Your task to perform on an android device: Open the phone app and click the voicemail tab. Image 0: 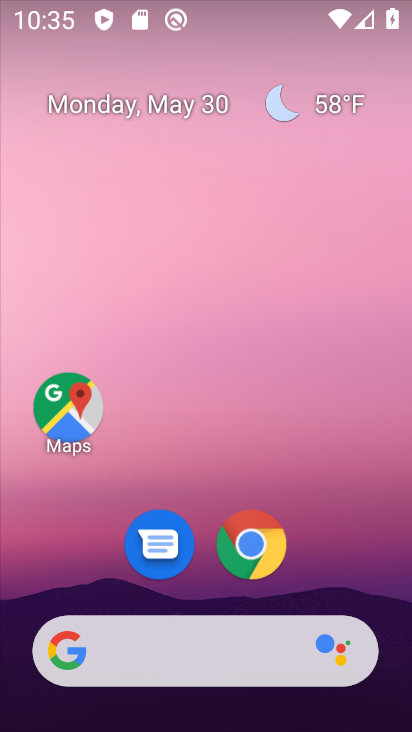
Step 0: drag from (395, 570) to (223, 8)
Your task to perform on an android device: Open the phone app and click the voicemail tab. Image 1: 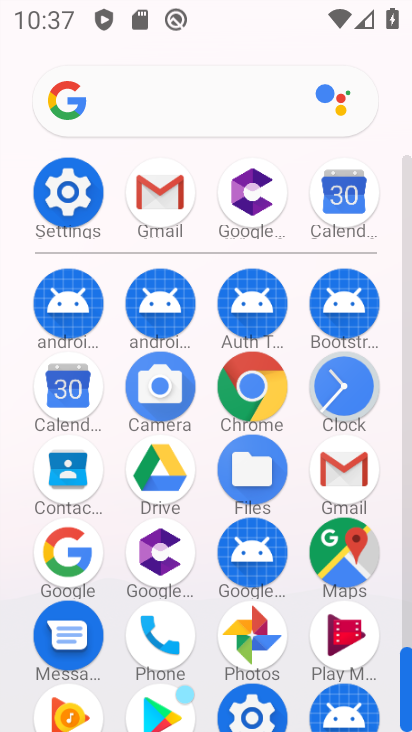
Step 1: click (162, 646)
Your task to perform on an android device: Open the phone app and click the voicemail tab. Image 2: 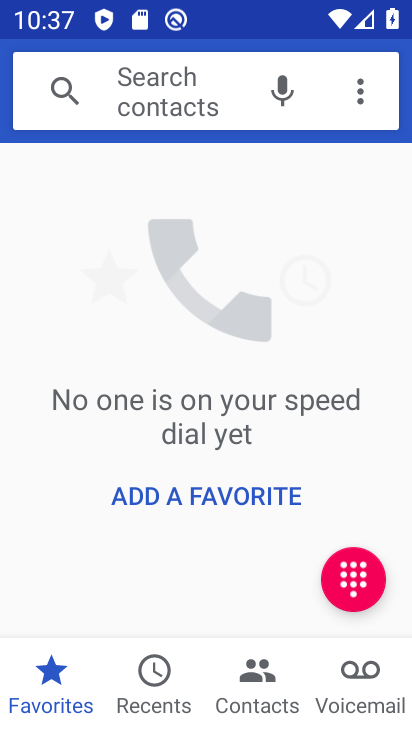
Step 2: click (375, 681)
Your task to perform on an android device: Open the phone app and click the voicemail tab. Image 3: 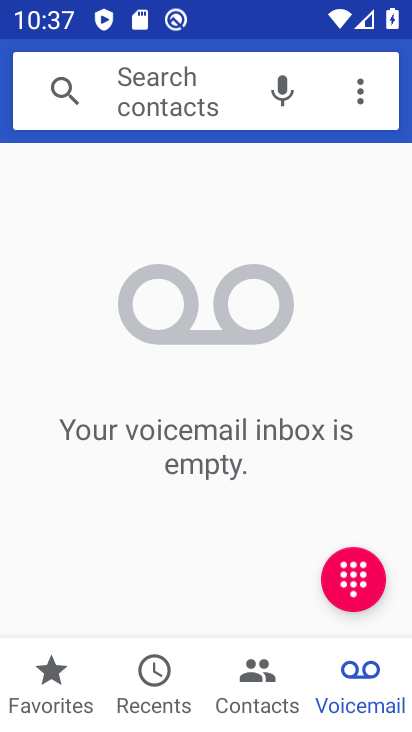
Step 3: task complete